Your task to perform on an android device: set default search engine in the chrome app Image 0: 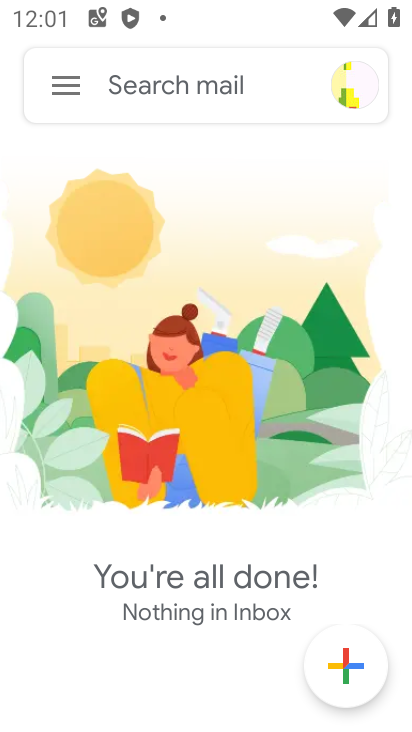
Step 0: press home button
Your task to perform on an android device: set default search engine in the chrome app Image 1: 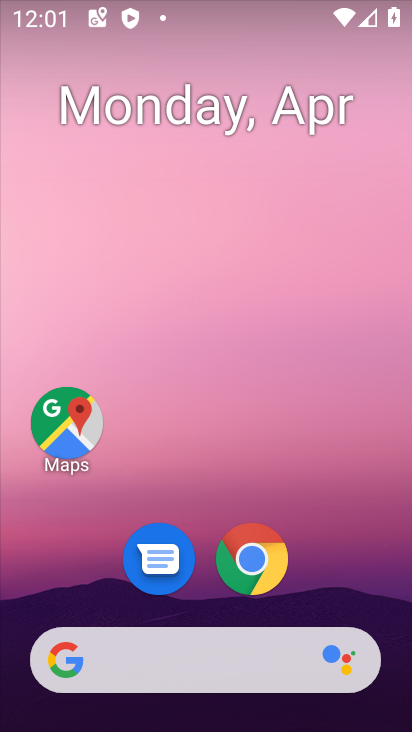
Step 1: click (263, 585)
Your task to perform on an android device: set default search engine in the chrome app Image 2: 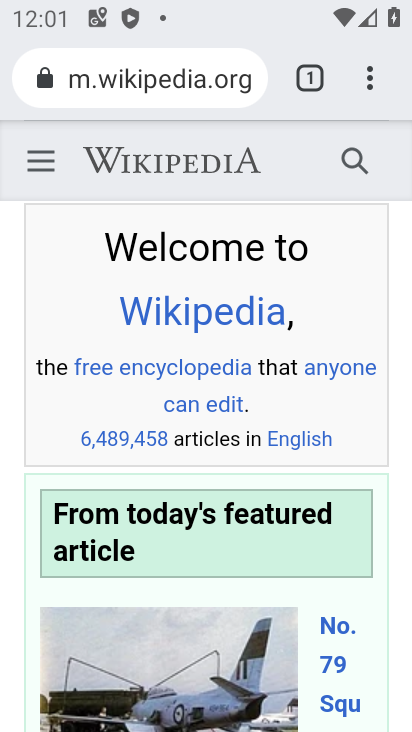
Step 2: click (376, 81)
Your task to perform on an android device: set default search engine in the chrome app Image 3: 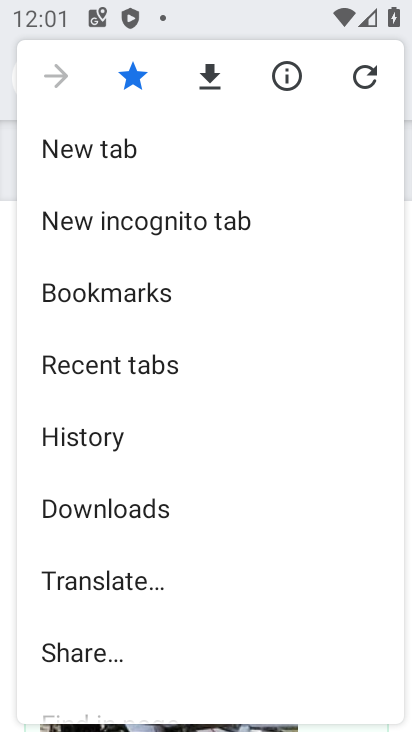
Step 3: drag from (175, 534) to (224, 267)
Your task to perform on an android device: set default search engine in the chrome app Image 4: 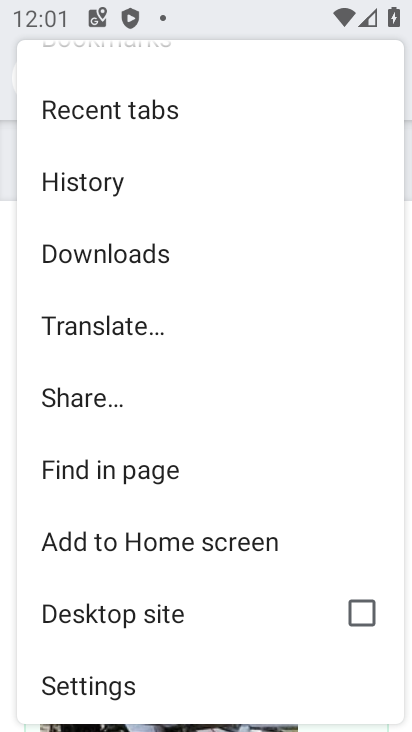
Step 4: drag from (143, 556) to (157, 456)
Your task to perform on an android device: set default search engine in the chrome app Image 5: 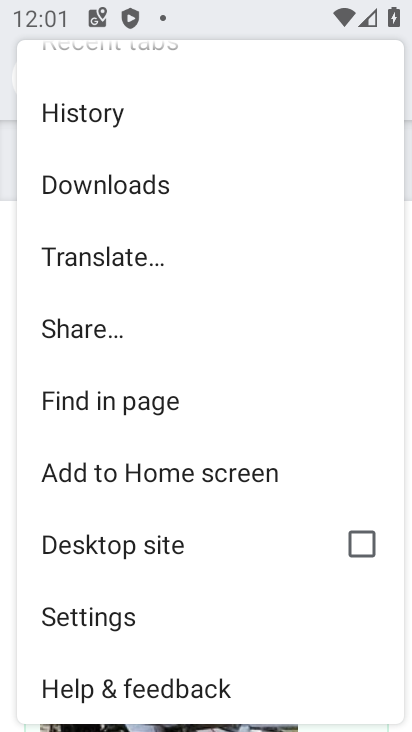
Step 5: click (211, 614)
Your task to perform on an android device: set default search engine in the chrome app Image 6: 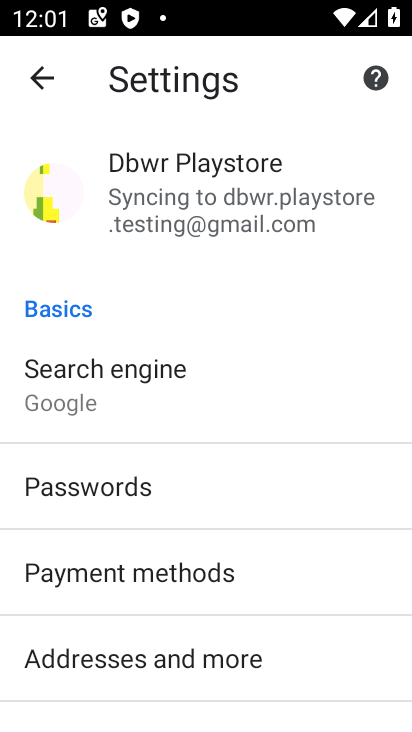
Step 6: drag from (197, 573) to (207, 494)
Your task to perform on an android device: set default search engine in the chrome app Image 7: 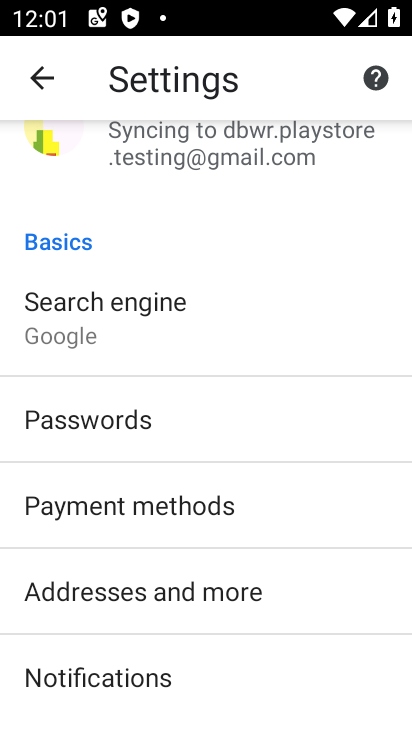
Step 7: drag from (199, 537) to (206, 441)
Your task to perform on an android device: set default search engine in the chrome app Image 8: 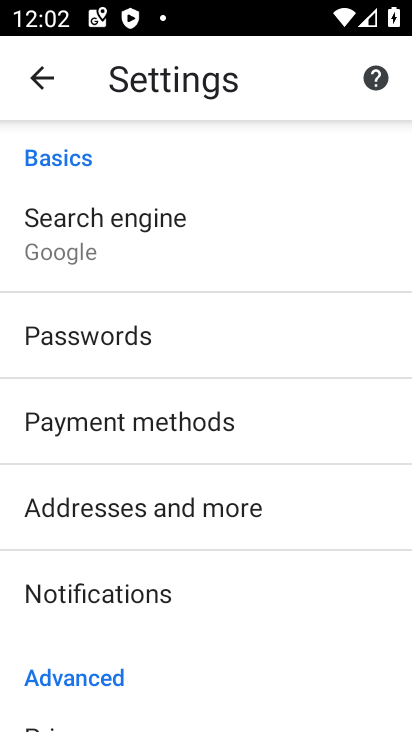
Step 8: click (204, 253)
Your task to perform on an android device: set default search engine in the chrome app Image 9: 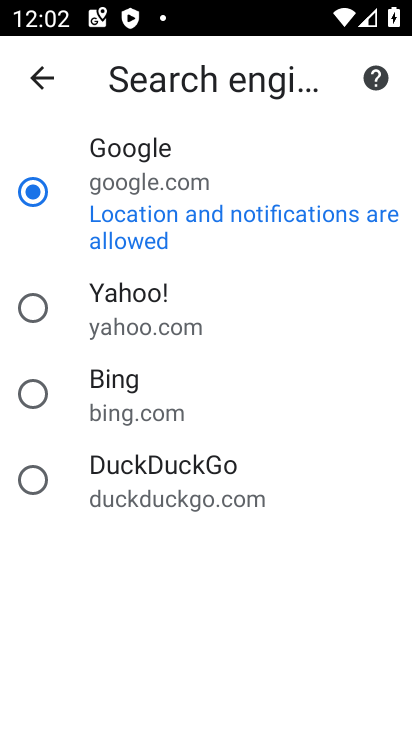
Step 9: click (196, 305)
Your task to perform on an android device: set default search engine in the chrome app Image 10: 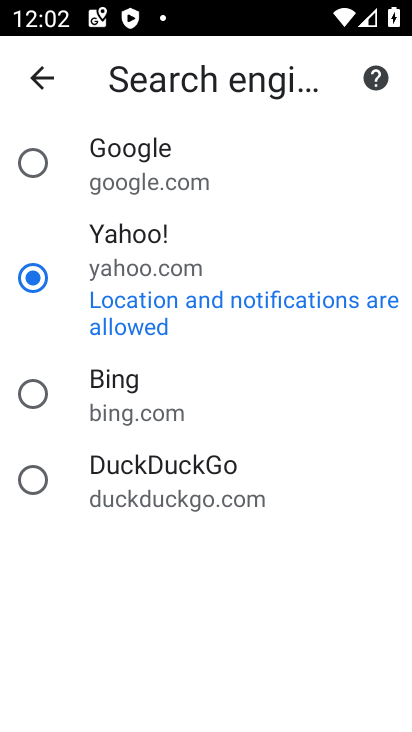
Step 10: task complete